Your task to perform on an android device: turn on the 24-hour format for clock Image 0: 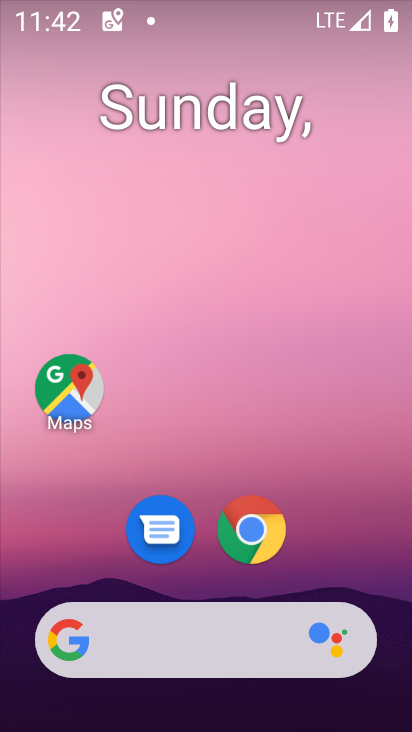
Step 0: drag from (308, 550) to (377, 196)
Your task to perform on an android device: turn on the 24-hour format for clock Image 1: 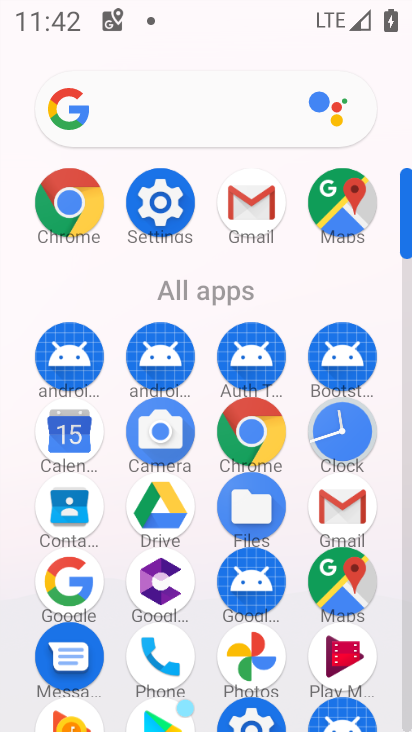
Step 1: click (343, 431)
Your task to perform on an android device: turn on the 24-hour format for clock Image 2: 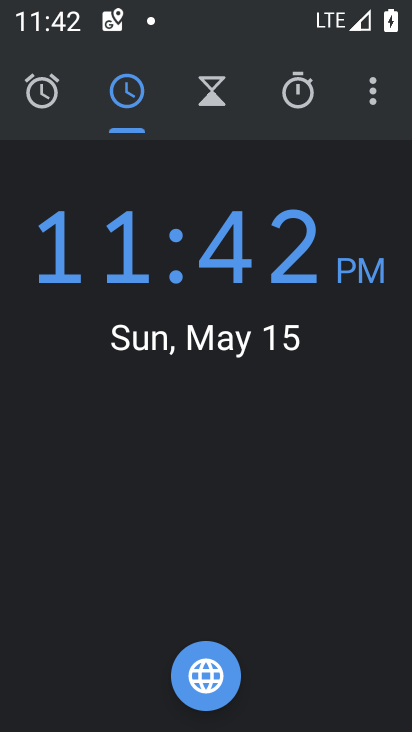
Step 2: click (377, 95)
Your task to perform on an android device: turn on the 24-hour format for clock Image 3: 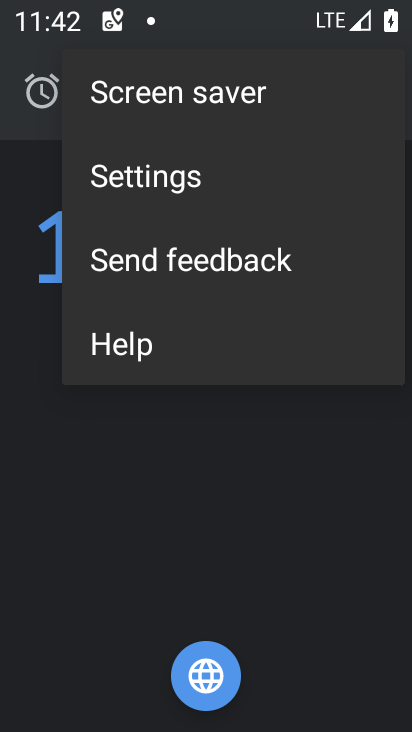
Step 3: click (163, 177)
Your task to perform on an android device: turn on the 24-hour format for clock Image 4: 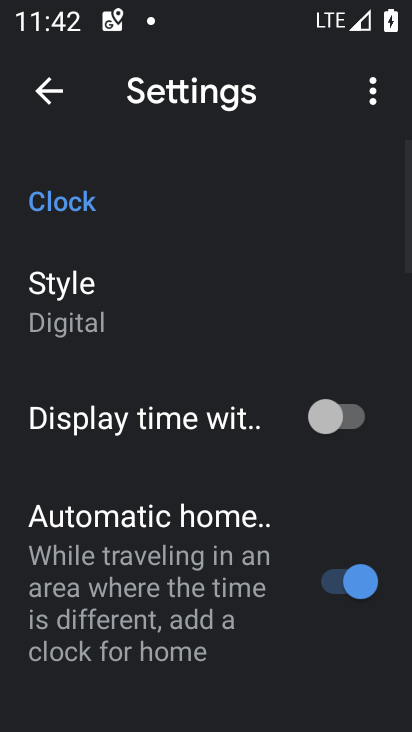
Step 4: drag from (229, 671) to (261, 343)
Your task to perform on an android device: turn on the 24-hour format for clock Image 5: 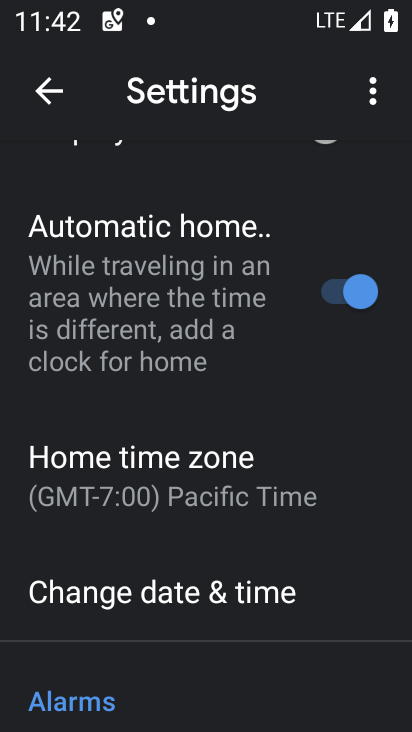
Step 5: click (190, 597)
Your task to perform on an android device: turn on the 24-hour format for clock Image 6: 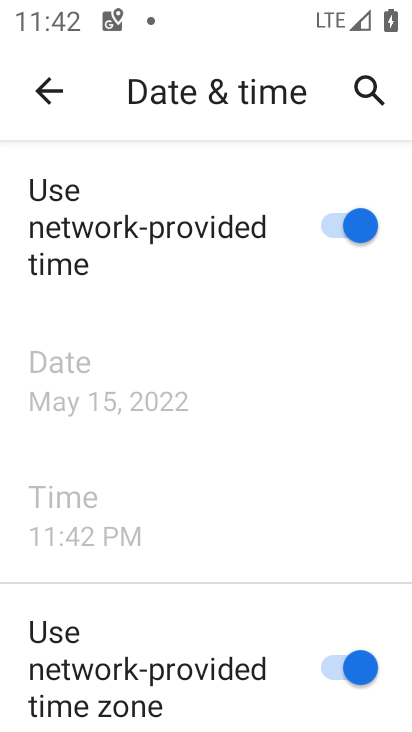
Step 6: drag from (182, 618) to (282, 298)
Your task to perform on an android device: turn on the 24-hour format for clock Image 7: 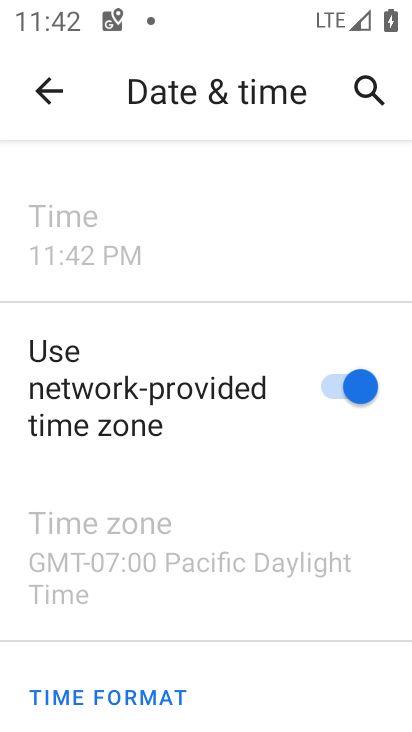
Step 7: drag from (174, 678) to (275, 395)
Your task to perform on an android device: turn on the 24-hour format for clock Image 8: 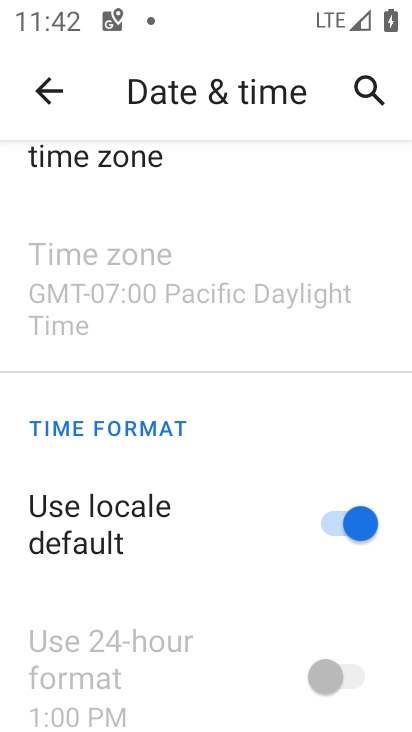
Step 8: click (330, 522)
Your task to perform on an android device: turn on the 24-hour format for clock Image 9: 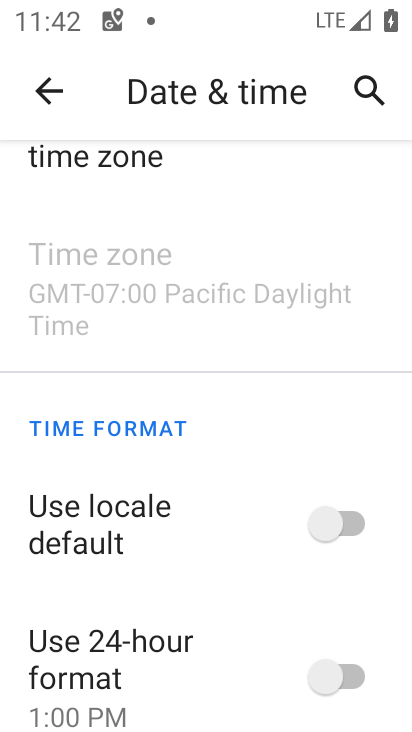
Step 9: click (342, 684)
Your task to perform on an android device: turn on the 24-hour format for clock Image 10: 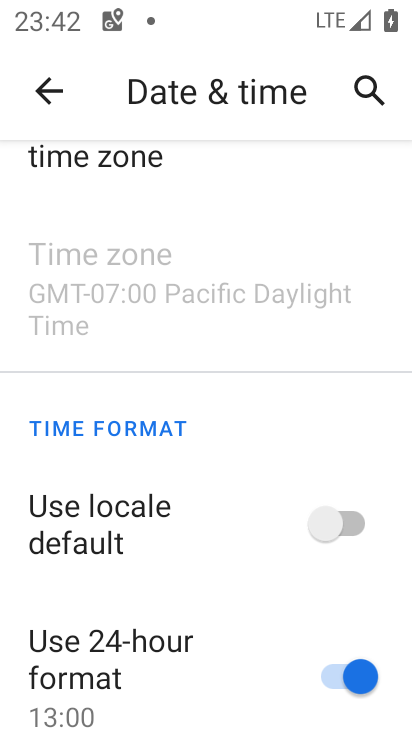
Step 10: task complete